Your task to perform on an android device: stop showing notifications on the lock screen Image 0: 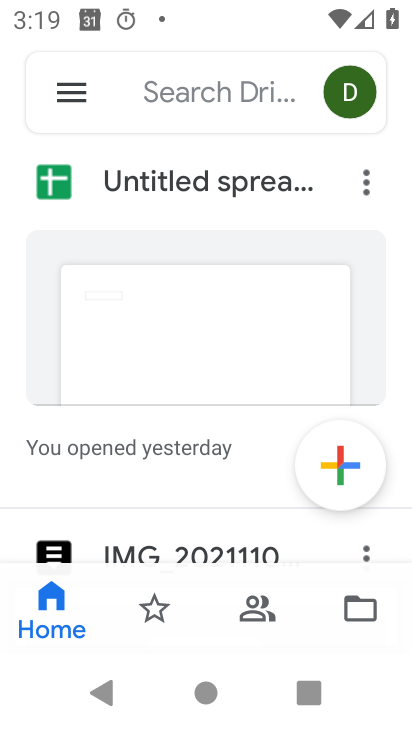
Step 0: press home button
Your task to perform on an android device: stop showing notifications on the lock screen Image 1: 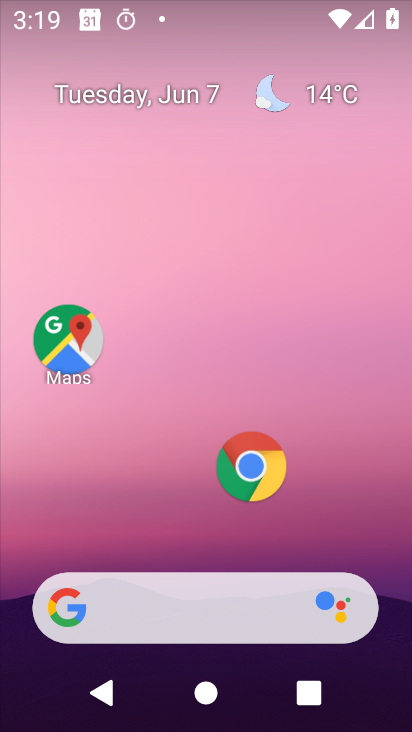
Step 1: drag from (168, 730) to (292, 14)
Your task to perform on an android device: stop showing notifications on the lock screen Image 2: 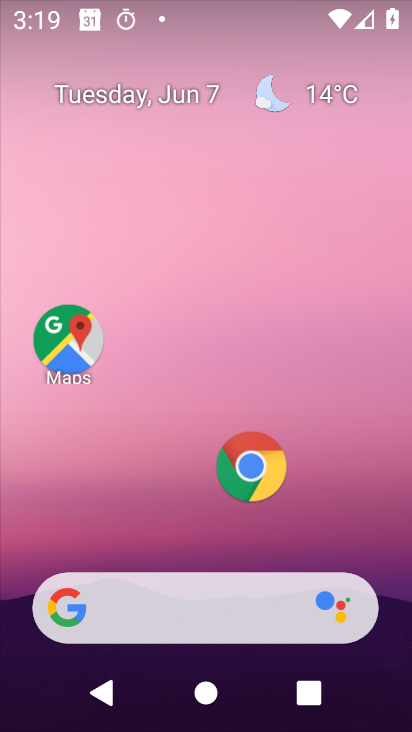
Step 2: drag from (166, 715) to (255, 8)
Your task to perform on an android device: stop showing notifications on the lock screen Image 3: 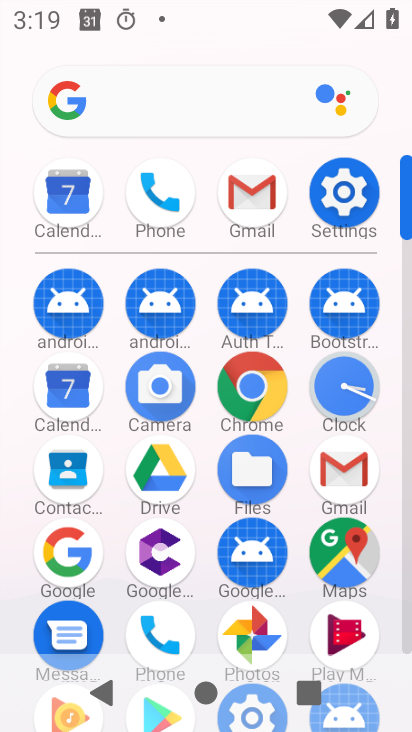
Step 3: click (338, 199)
Your task to perform on an android device: stop showing notifications on the lock screen Image 4: 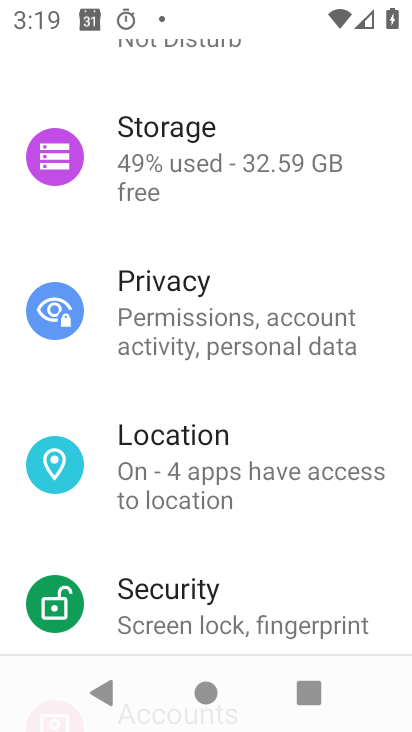
Step 4: drag from (294, 123) to (250, 644)
Your task to perform on an android device: stop showing notifications on the lock screen Image 5: 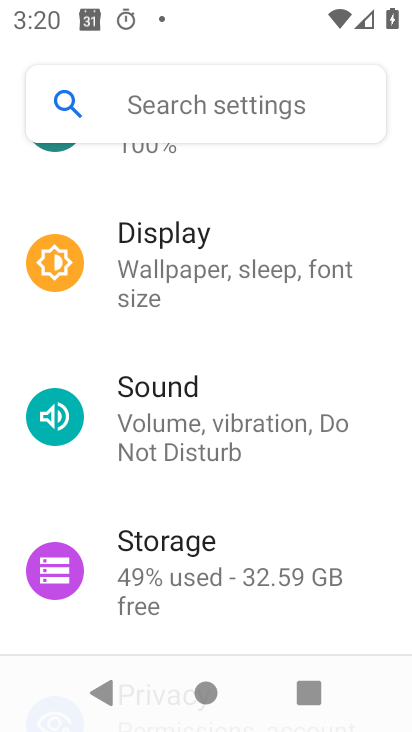
Step 5: drag from (268, 289) to (240, 638)
Your task to perform on an android device: stop showing notifications on the lock screen Image 6: 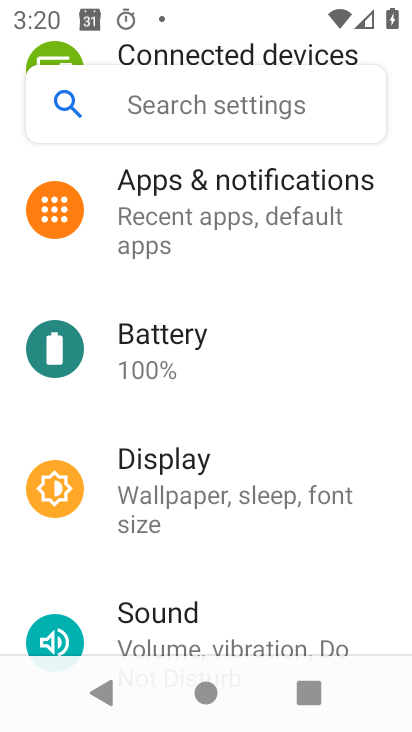
Step 6: click (186, 221)
Your task to perform on an android device: stop showing notifications on the lock screen Image 7: 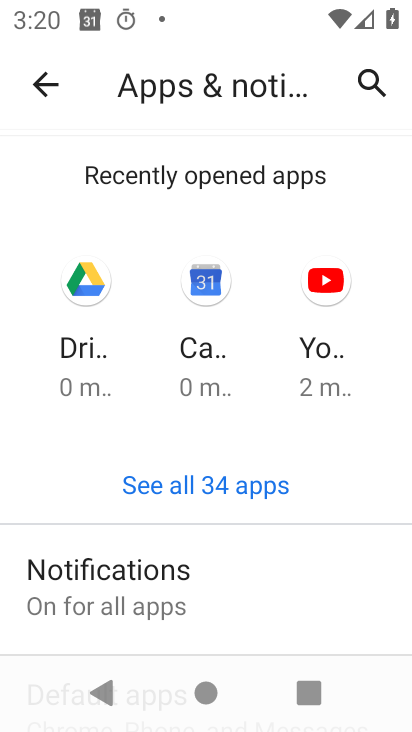
Step 7: click (126, 597)
Your task to perform on an android device: stop showing notifications on the lock screen Image 8: 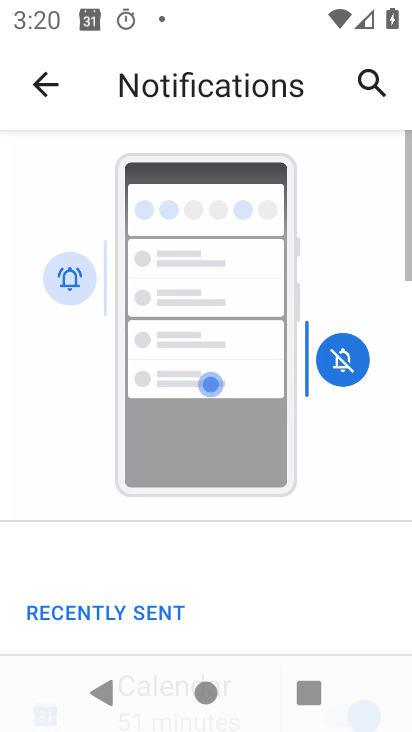
Step 8: drag from (260, 581) to (321, 253)
Your task to perform on an android device: stop showing notifications on the lock screen Image 9: 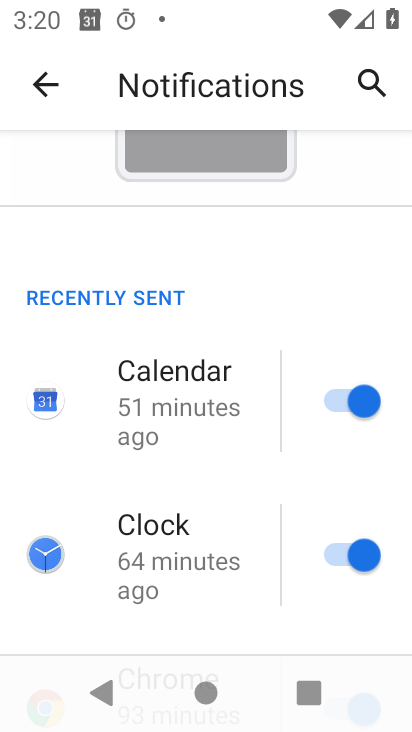
Step 9: drag from (286, 581) to (322, 252)
Your task to perform on an android device: stop showing notifications on the lock screen Image 10: 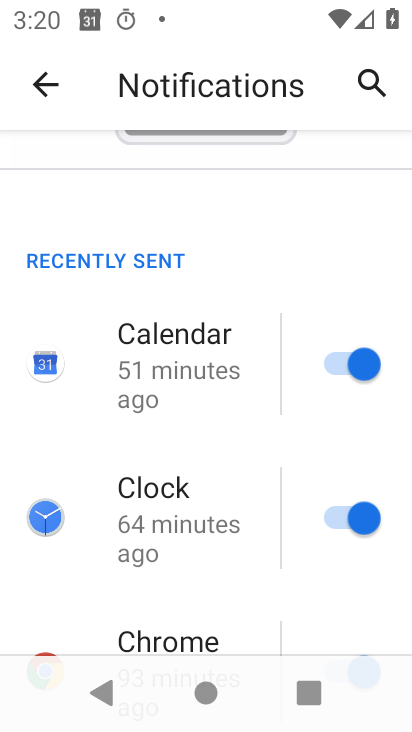
Step 10: drag from (287, 572) to (299, 209)
Your task to perform on an android device: stop showing notifications on the lock screen Image 11: 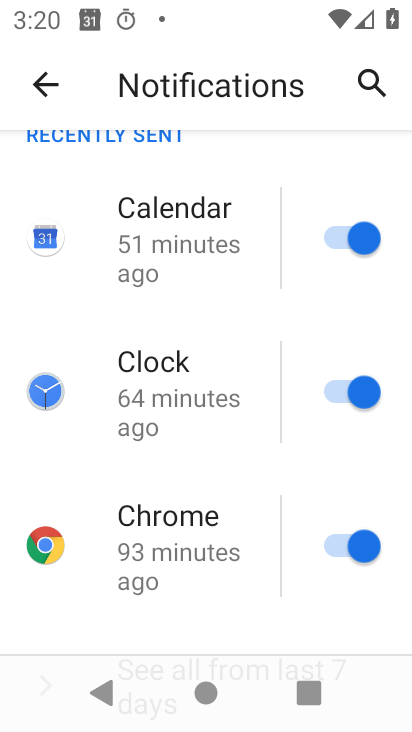
Step 11: drag from (267, 545) to (273, 262)
Your task to perform on an android device: stop showing notifications on the lock screen Image 12: 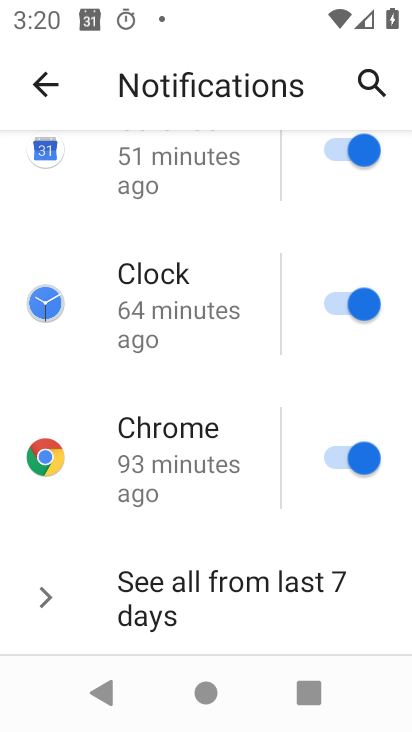
Step 12: drag from (245, 528) to (237, 398)
Your task to perform on an android device: stop showing notifications on the lock screen Image 13: 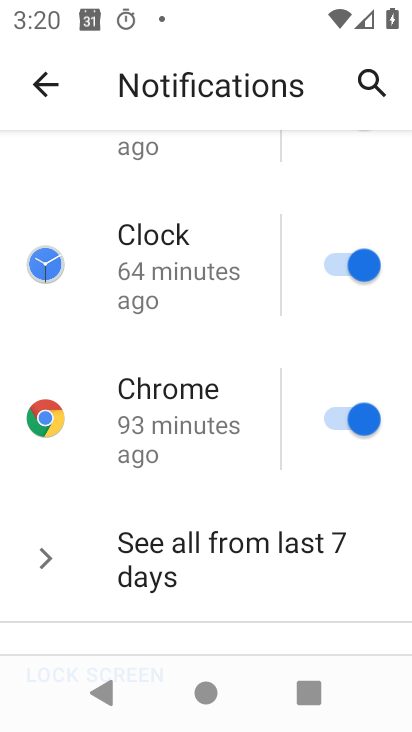
Step 13: drag from (228, 592) to (262, 231)
Your task to perform on an android device: stop showing notifications on the lock screen Image 14: 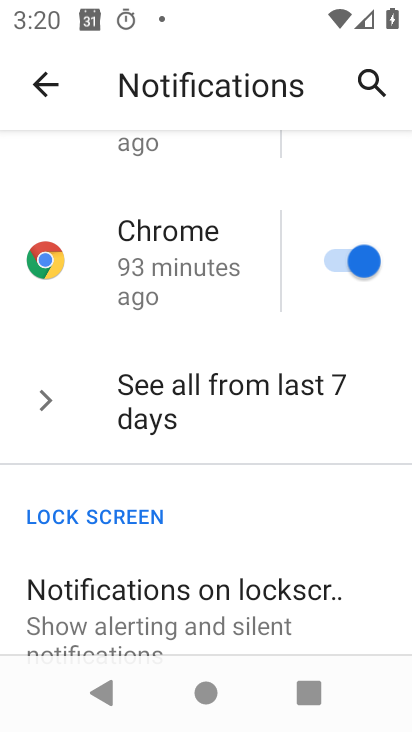
Step 14: click (245, 600)
Your task to perform on an android device: stop showing notifications on the lock screen Image 15: 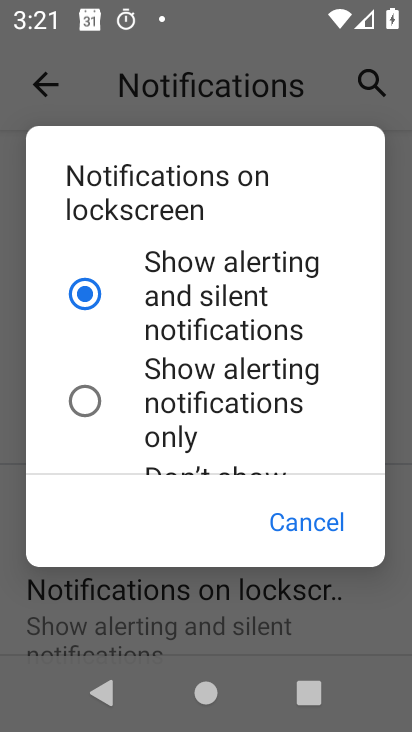
Step 15: task complete